Your task to perform on an android device: Open network settings Image 0: 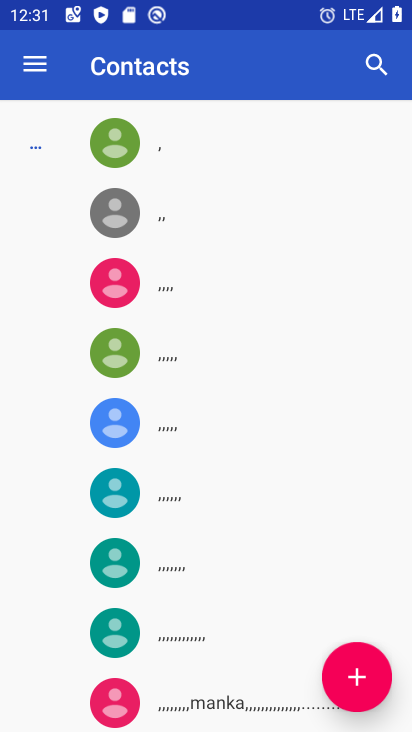
Step 0: press home button
Your task to perform on an android device: Open network settings Image 1: 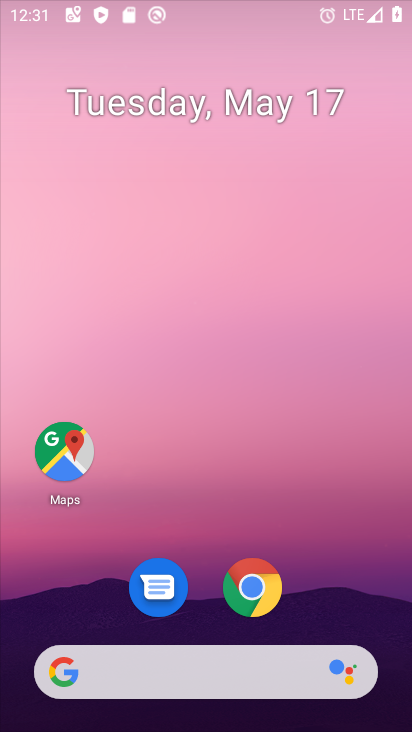
Step 1: drag from (394, 661) to (272, 62)
Your task to perform on an android device: Open network settings Image 2: 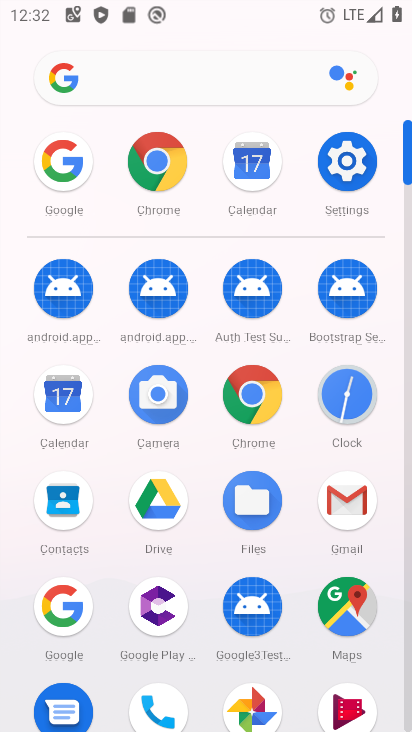
Step 2: click (358, 142)
Your task to perform on an android device: Open network settings Image 3: 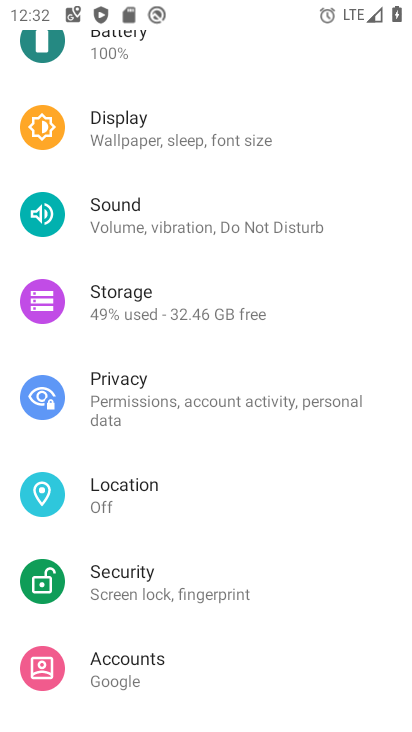
Step 3: drag from (202, 128) to (245, 654)
Your task to perform on an android device: Open network settings Image 4: 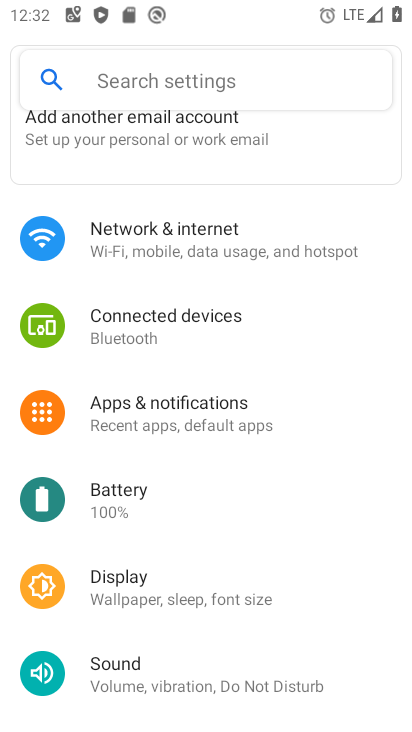
Step 4: click (190, 258)
Your task to perform on an android device: Open network settings Image 5: 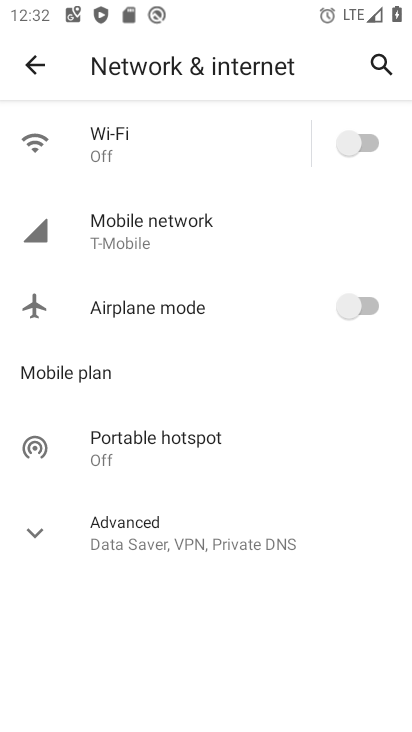
Step 5: task complete